Your task to perform on an android device: What's on my calendar tomorrow? Image 0: 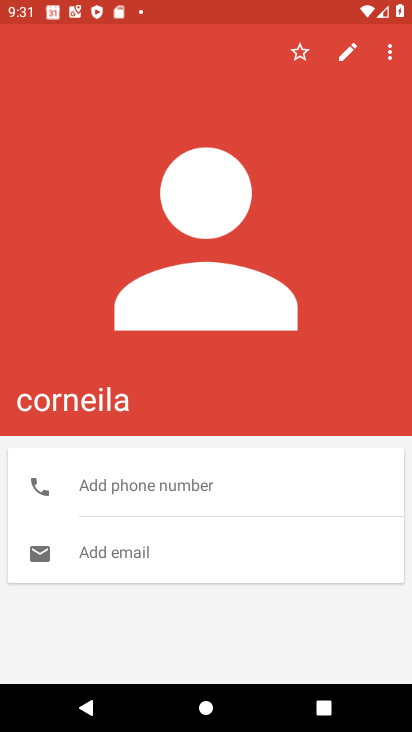
Step 0: press home button
Your task to perform on an android device: What's on my calendar tomorrow? Image 1: 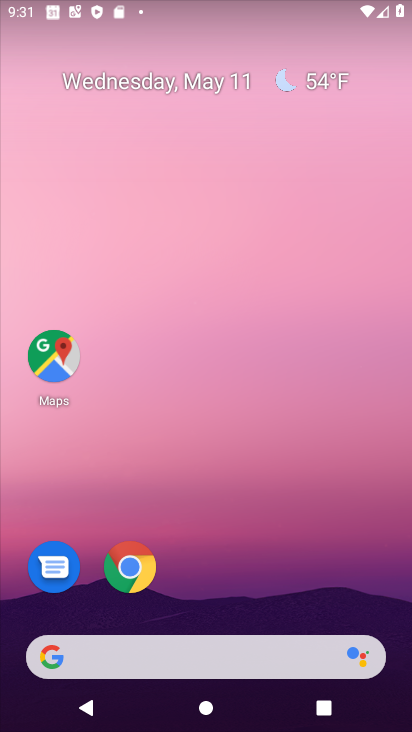
Step 1: drag from (200, 604) to (335, 43)
Your task to perform on an android device: What's on my calendar tomorrow? Image 2: 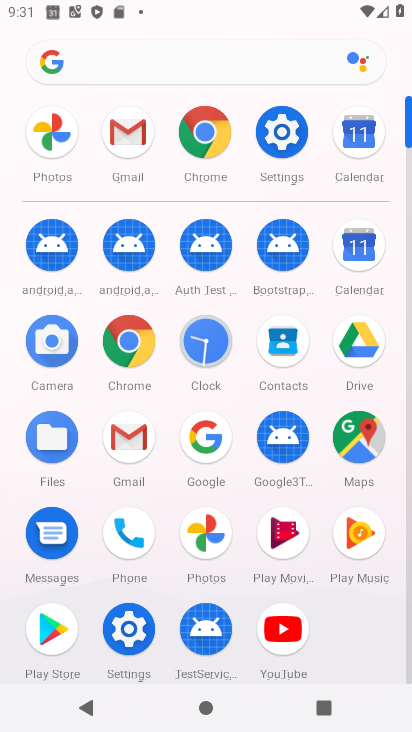
Step 2: click (380, 250)
Your task to perform on an android device: What's on my calendar tomorrow? Image 3: 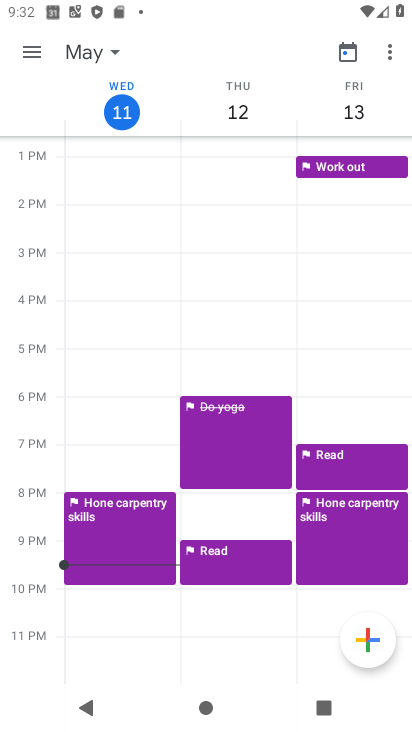
Step 3: drag from (181, 403) to (207, 242)
Your task to perform on an android device: What's on my calendar tomorrow? Image 4: 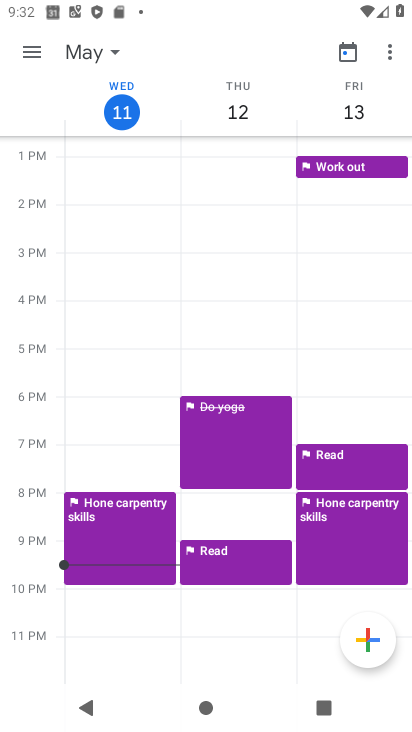
Step 4: click (36, 57)
Your task to perform on an android device: What's on my calendar tomorrow? Image 5: 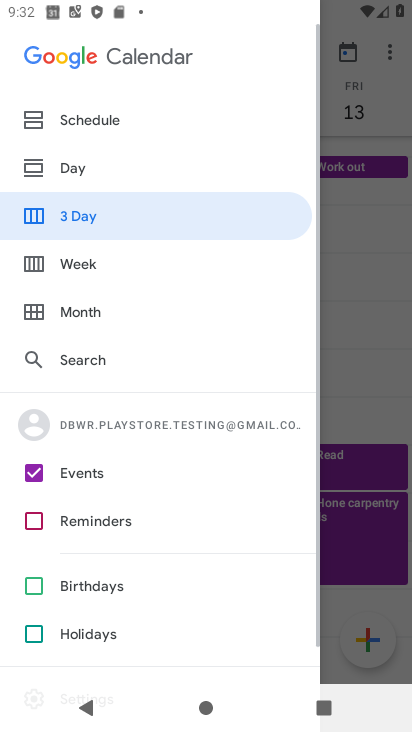
Step 5: click (117, 524)
Your task to perform on an android device: What's on my calendar tomorrow? Image 6: 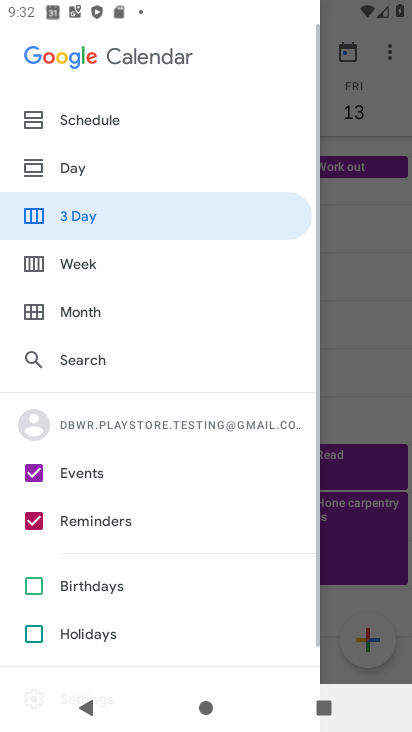
Step 6: click (91, 590)
Your task to perform on an android device: What's on my calendar tomorrow? Image 7: 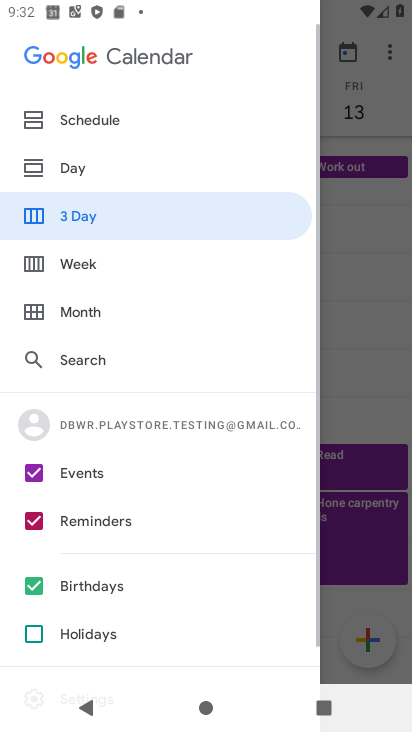
Step 7: click (70, 631)
Your task to perform on an android device: What's on my calendar tomorrow? Image 8: 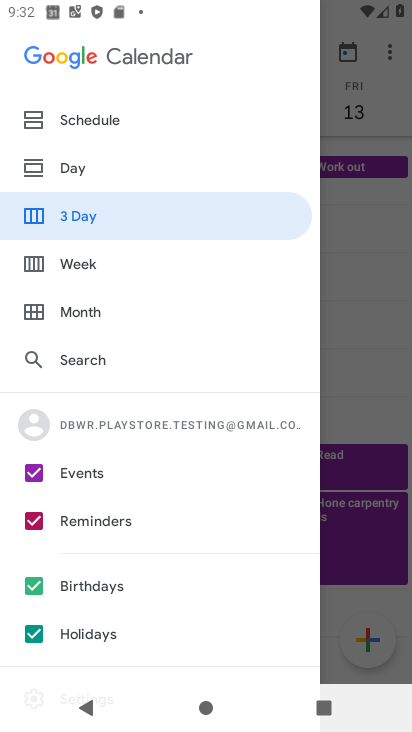
Step 8: click (141, 221)
Your task to perform on an android device: What's on my calendar tomorrow? Image 9: 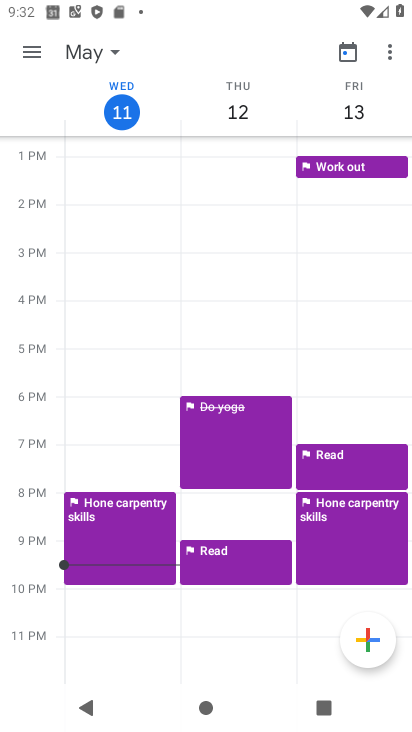
Step 9: task complete